Your task to perform on an android device: Go to sound settings Image 0: 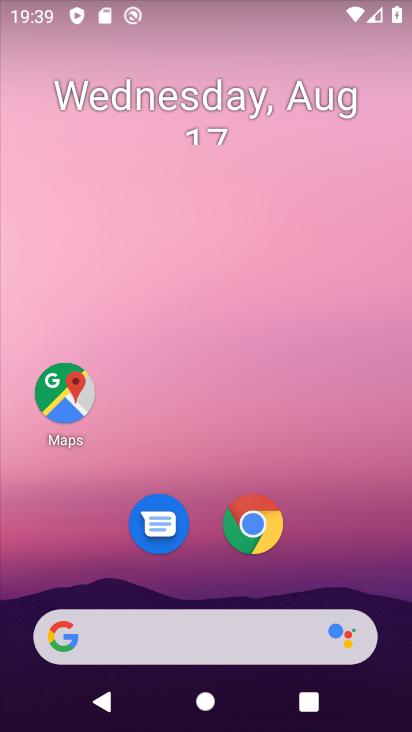
Step 0: drag from (329, 503) to (283, 99)
Your task to perform on an android device: Go to sound settings Image 1: 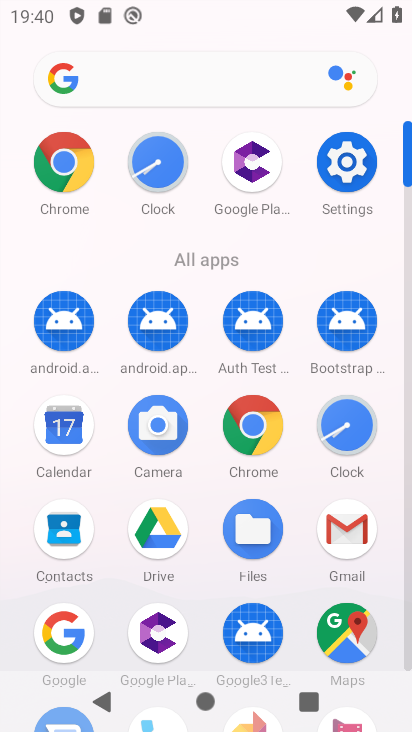
Step 1: click (352, 165)
Your task to perform on an android device: Go to sound settings Image 2: 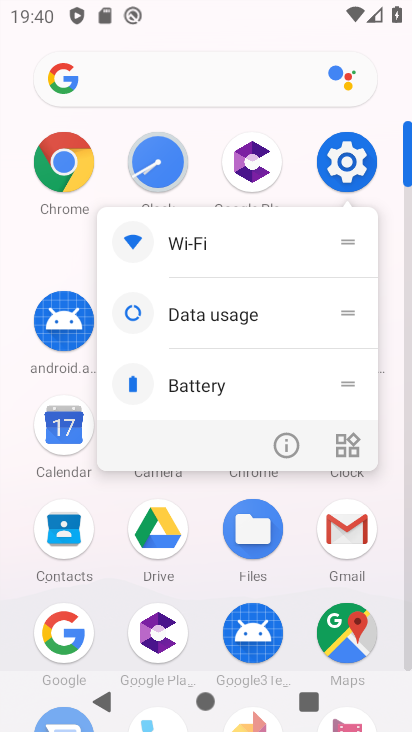
Step 2: click (352, 163)
Your task to perform on an android device: Go to sound settings Image 3: 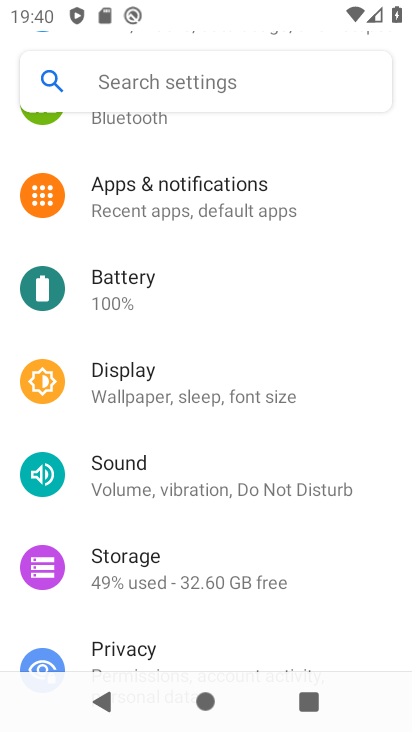
Step 3: click (185, 470)
Your task to perform on an android device: Go to sound settings Image 4: 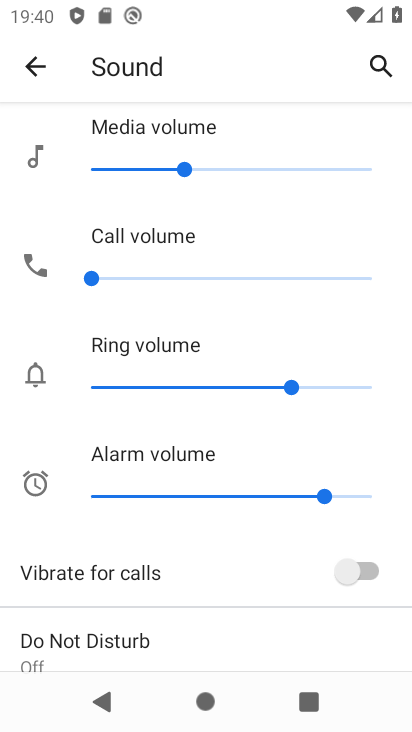
Step 4: task complete